Your task to perform on an android device: toggle pop-ups in chrome Image 0: 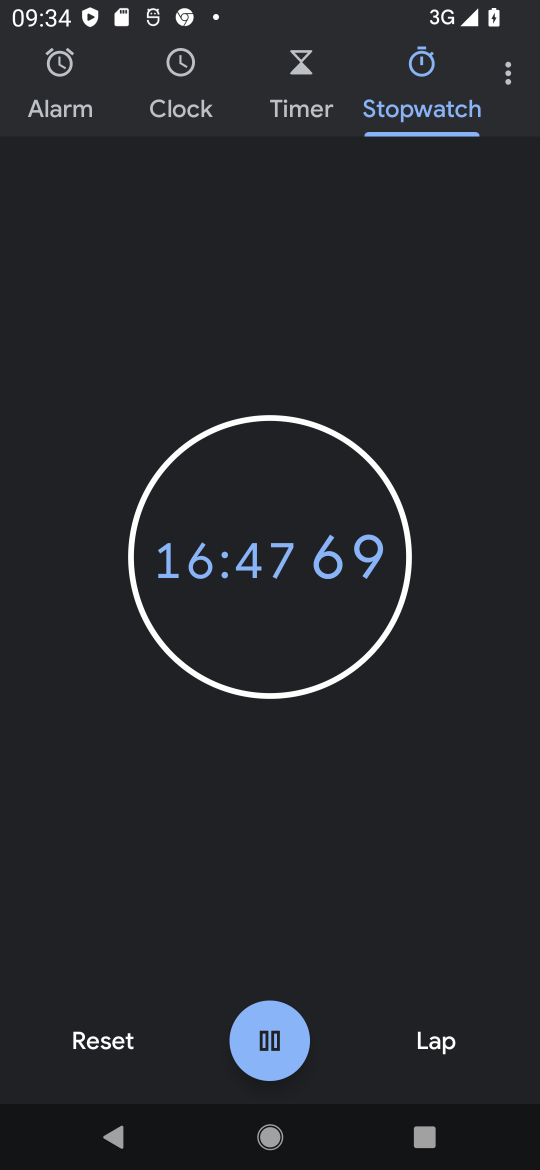
Step 0: press home button
Your task to perform on an android device: toggle pop-ups in chrome Image 1: 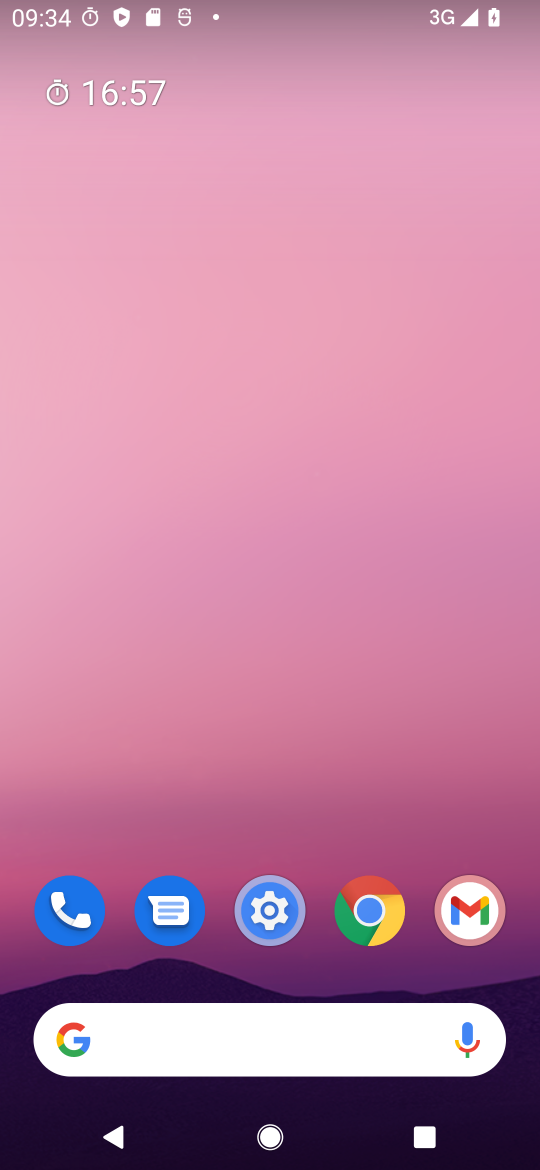
Step 1: drag from (225, 1063) to (446, 80)
Your task to perform on an android device: toggle pop-ups in chrome Image 2: 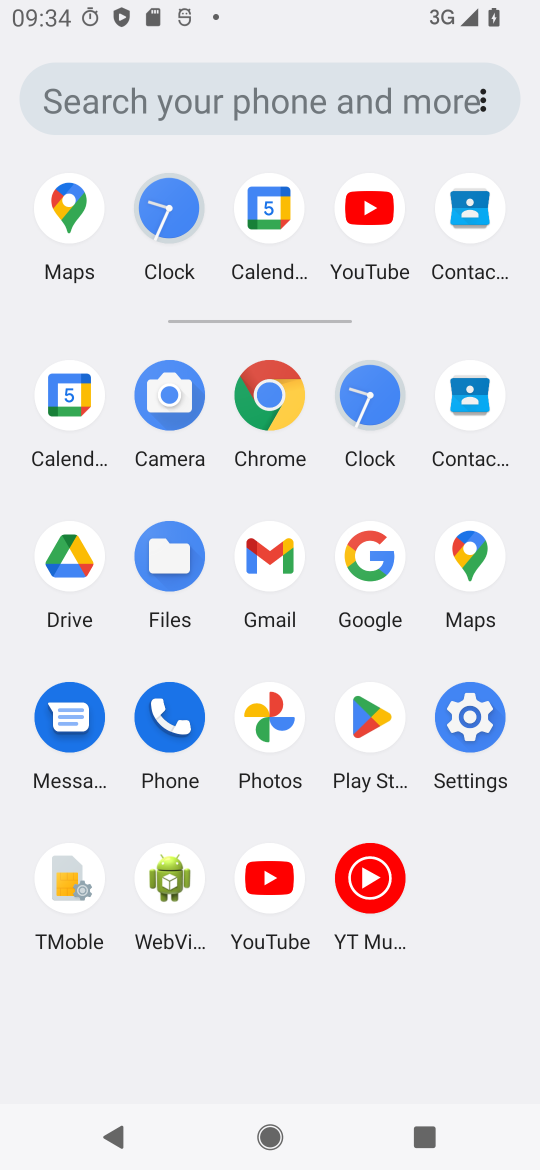
Step 2: click (275, 378)
Your task to perform on an android device: toggle pop-ups in chrome Image 3: 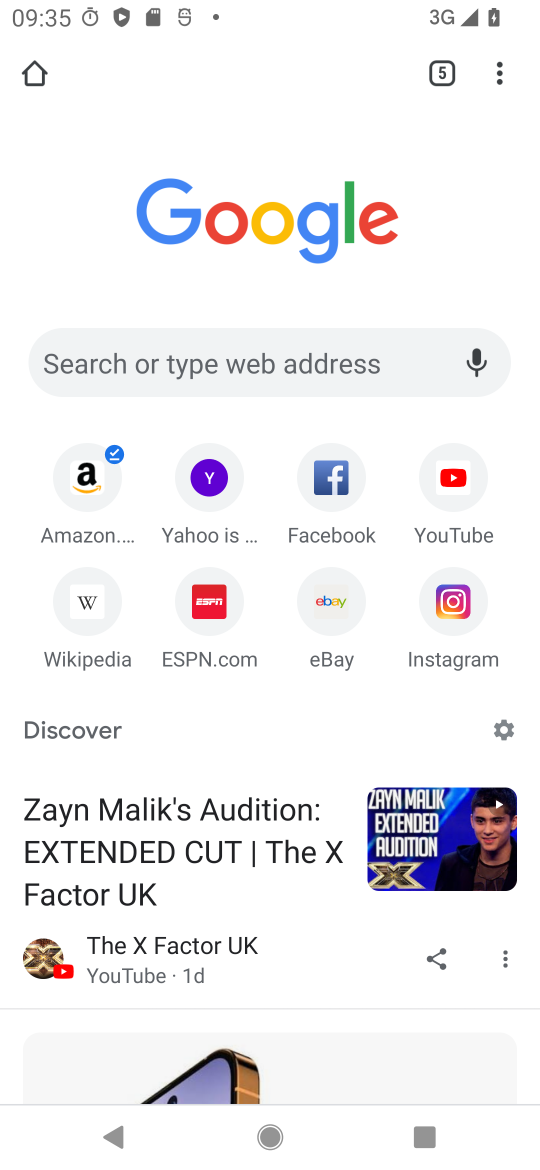
Step 3: click (493, 69)
Your task to perform on an android device: toggle pop-ups in chrome Image 4: 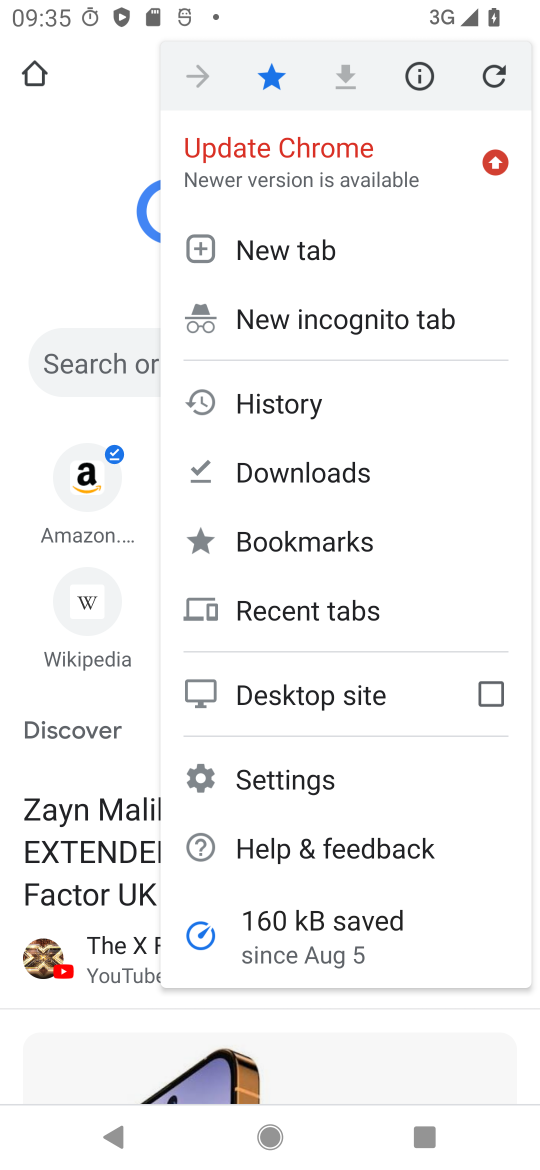
Step 4: click (304, 790)
Your task to perform on an android device: toggle pop-ups in chrome Image 5: 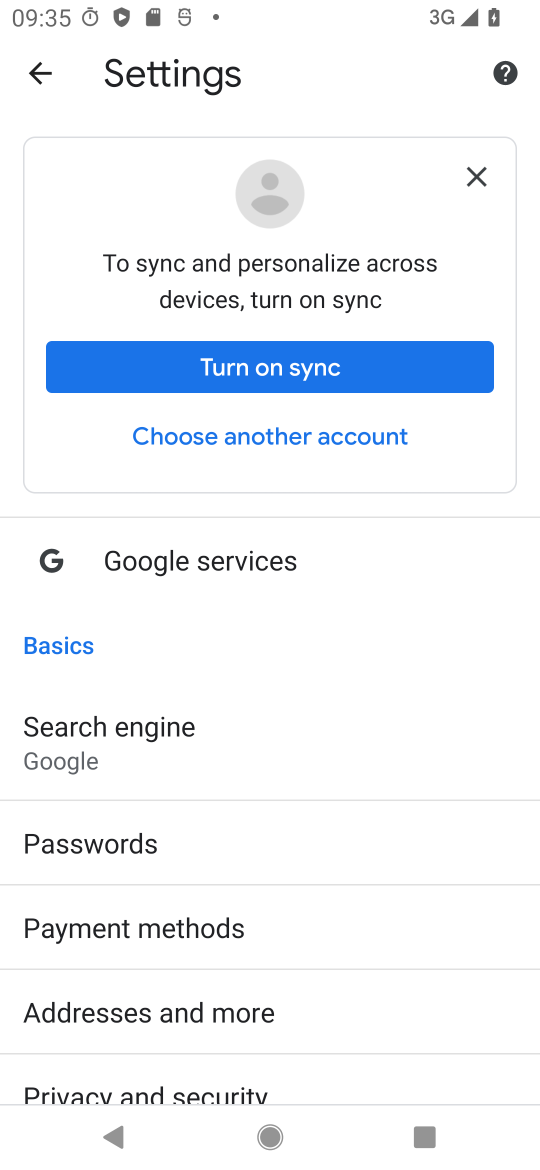
Step 5: drag from (287, 967) to (334, 411)
Your task to perform on an android device: toggle pop-ups in chrome Image 6: 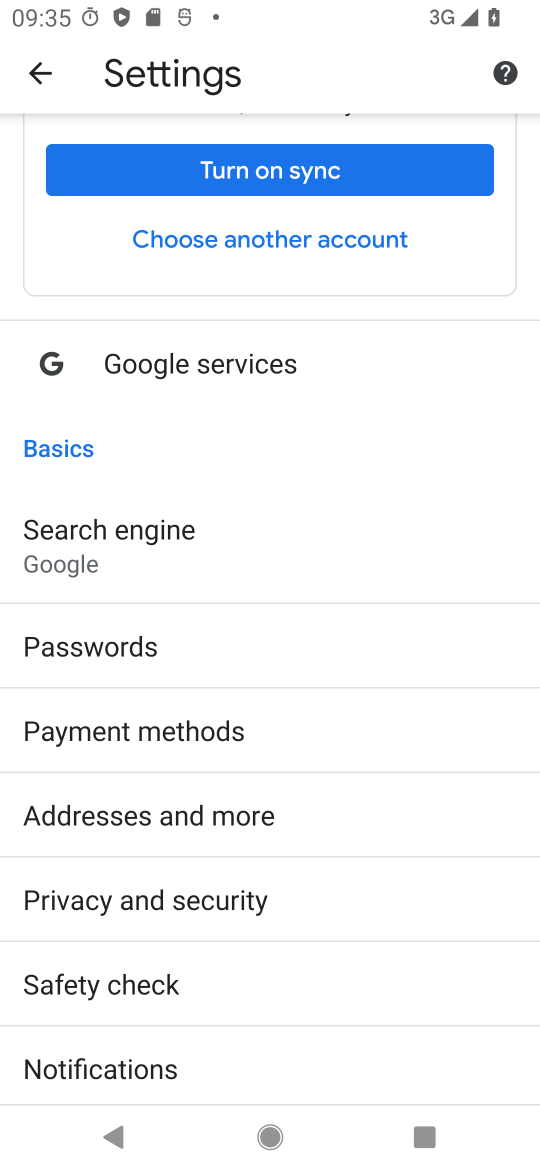
Step 6: drag from (274, 1053) to (435, 192)
Your task to perform on an android device: toggle pop-ups in chrome Image 7: 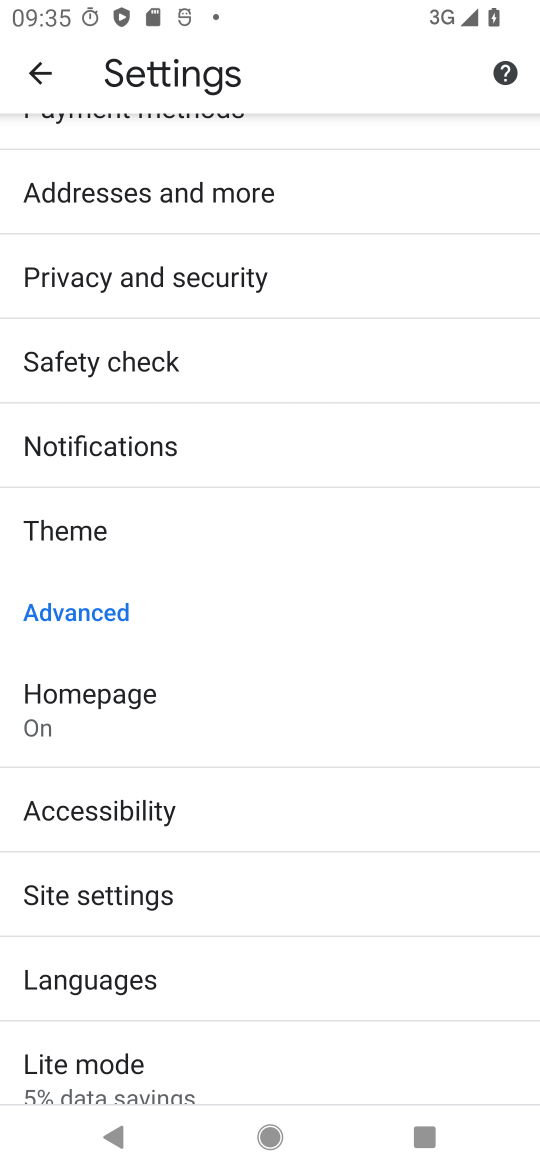
Step 7: click (155, 884)
Your task to perform on an android device: toggle pop-ups in chrome Image 8: 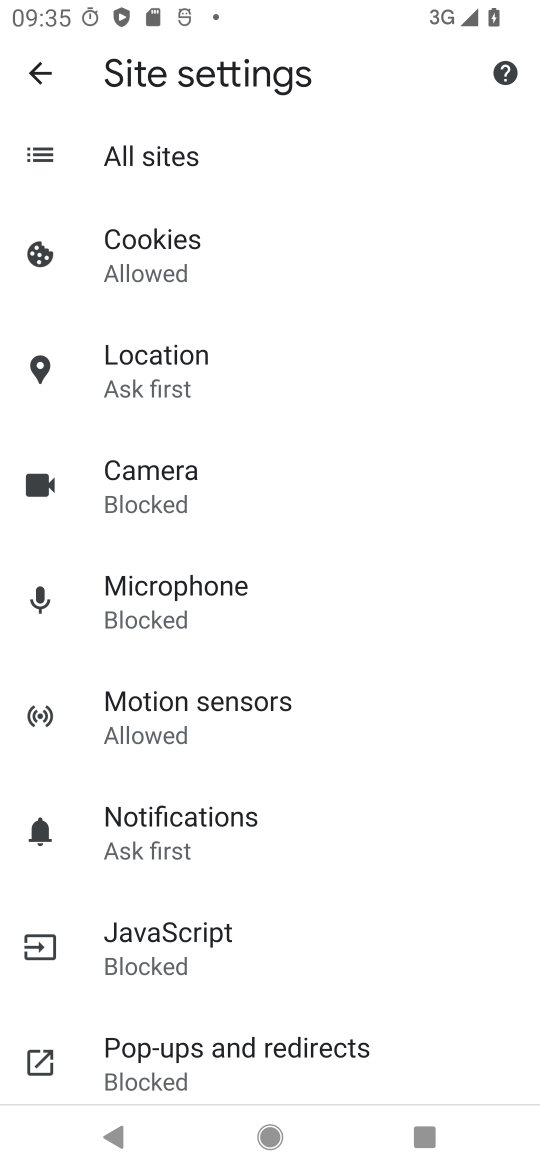
Step 8: click (251, 1091)
Your task to perform on an android device: toggle pop-ups in chrome Image 9: 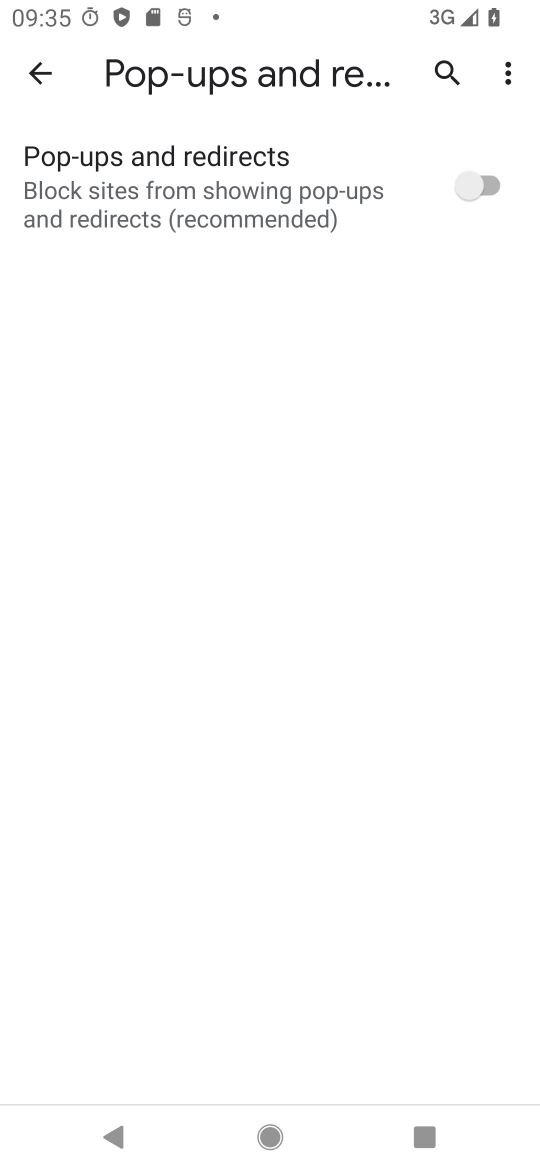
Step 9: click (478, 167)
Your task to perform on an android device: toggle pop-ups in chrome Image 10: 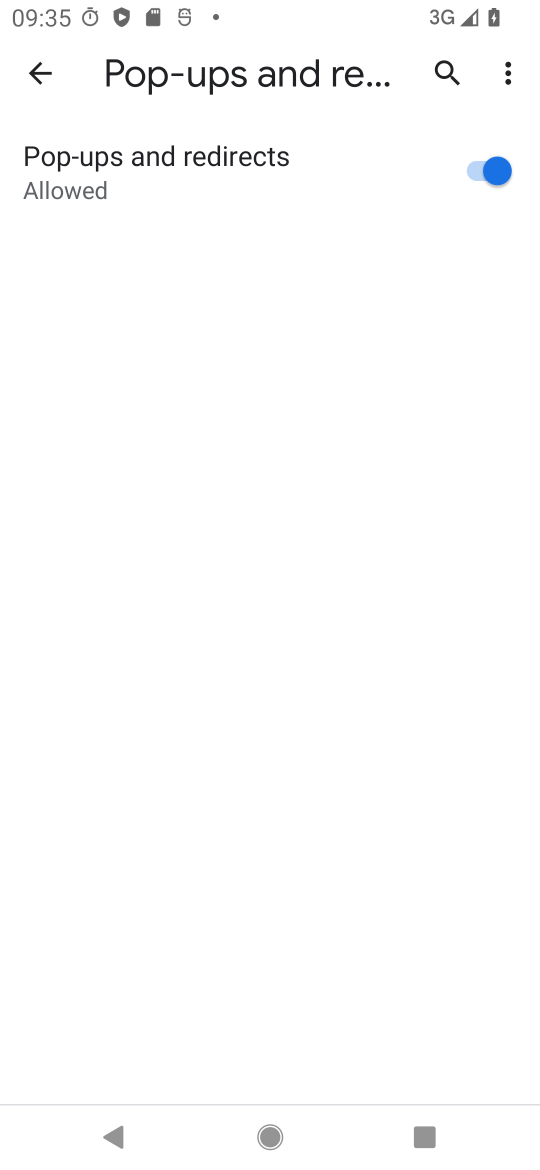
Step 10: task complete